Your task to perform on an android device: delete the emails in spam in the gmail app Image 0: 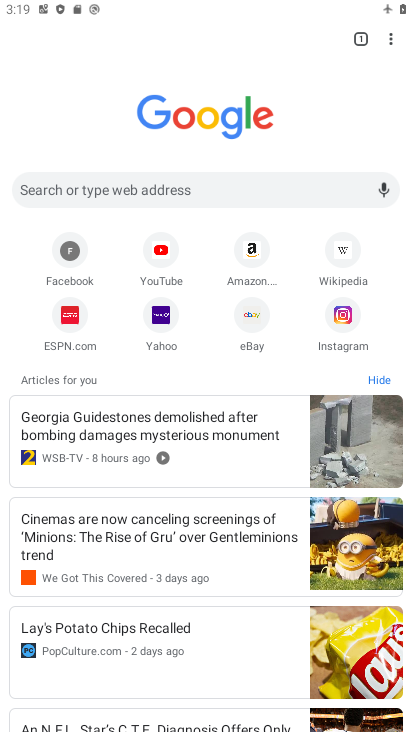
Step 0: press home button
Your task to perform on an android device: delete the emails in spam in the gmail app Image 1: 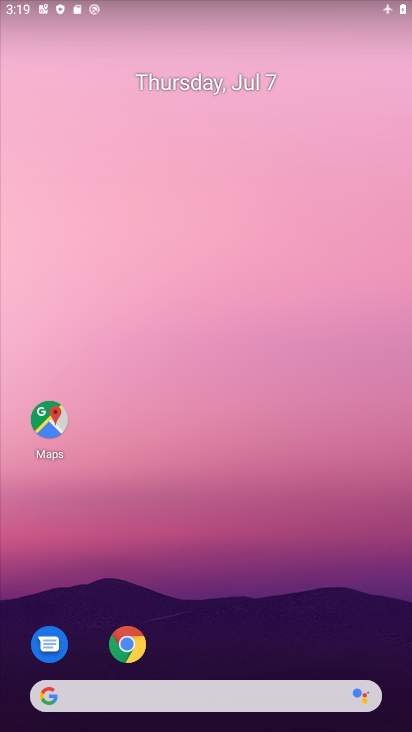
Step 1: drag from (182, 655) to (144, 22)
Your task to perform on an android device: delete the emails in spam in the gmail app Image 2: 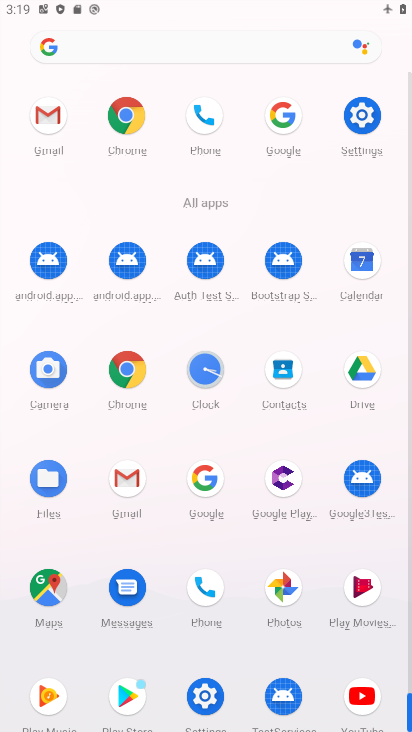
Step 2: click (125, 484)
Your task to perform on an android device: delete the emails in spam in the gmail app Image 3: 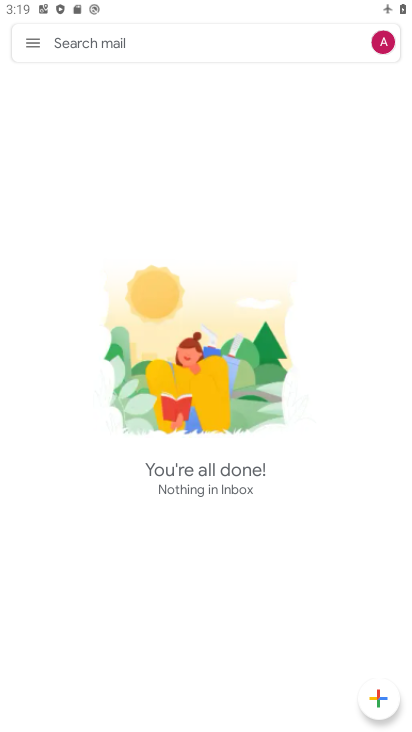
Step 3: click (25, 43)
Your task to perform on an android device: delete the emails in spam in the gmail app Image 4: 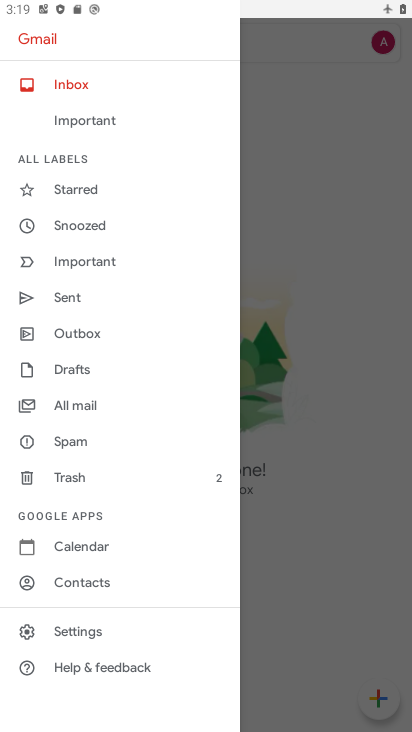
Step 4: click (80, 438)
Your task to perform on an android device: delete the emails in spam in the gmail app Image 5: 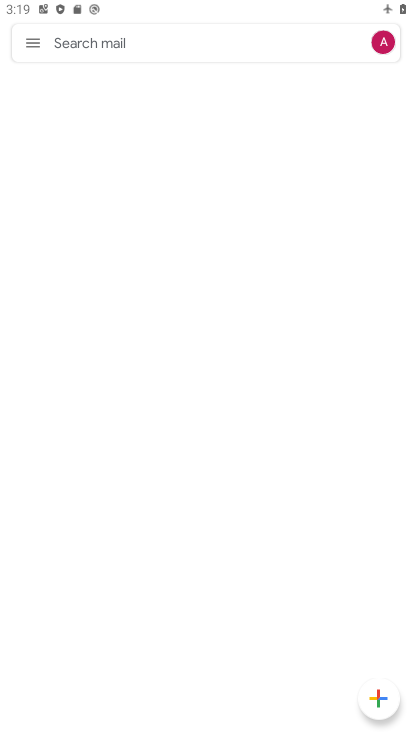
Step 5: task complete